Your task to perform on an android device: Add sony triple a to the cart on target, then select checkout. Image 0: 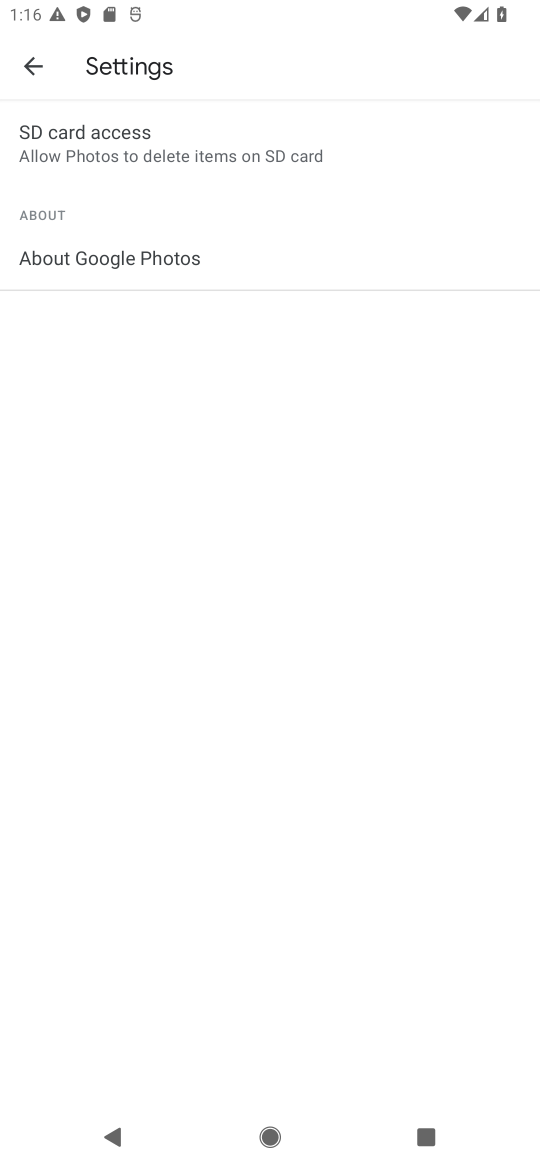
Step 0: press home button
Your task to perform on an android device: Add sony triple a to the cart on target, then select checkout. Image 1: 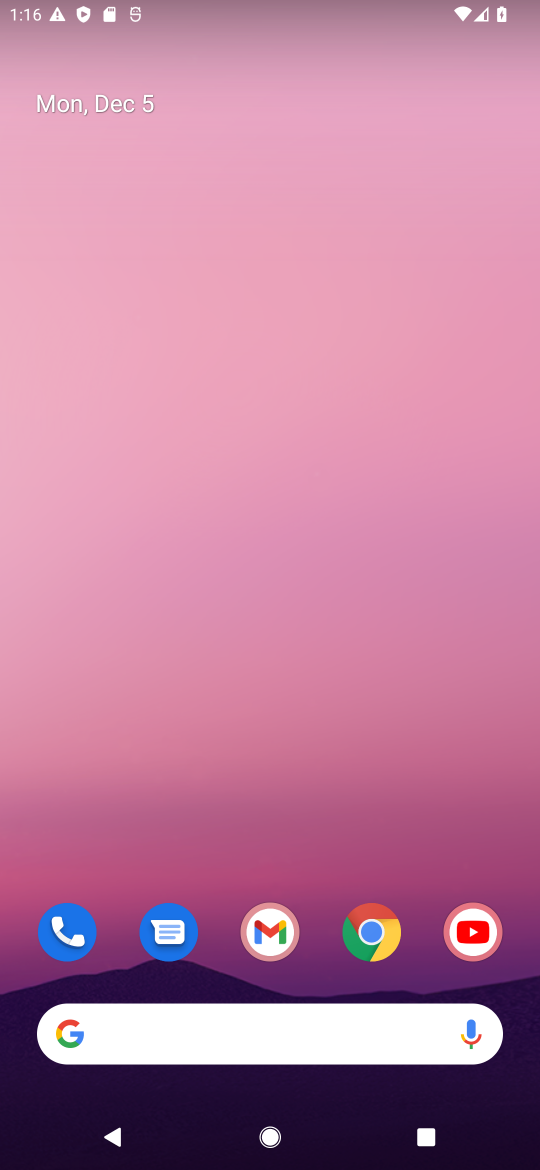
Step 1: click (353, 926)
Your task to perform on an android device: Add sony triple a to the cart on target, then select checkout. Image 2: 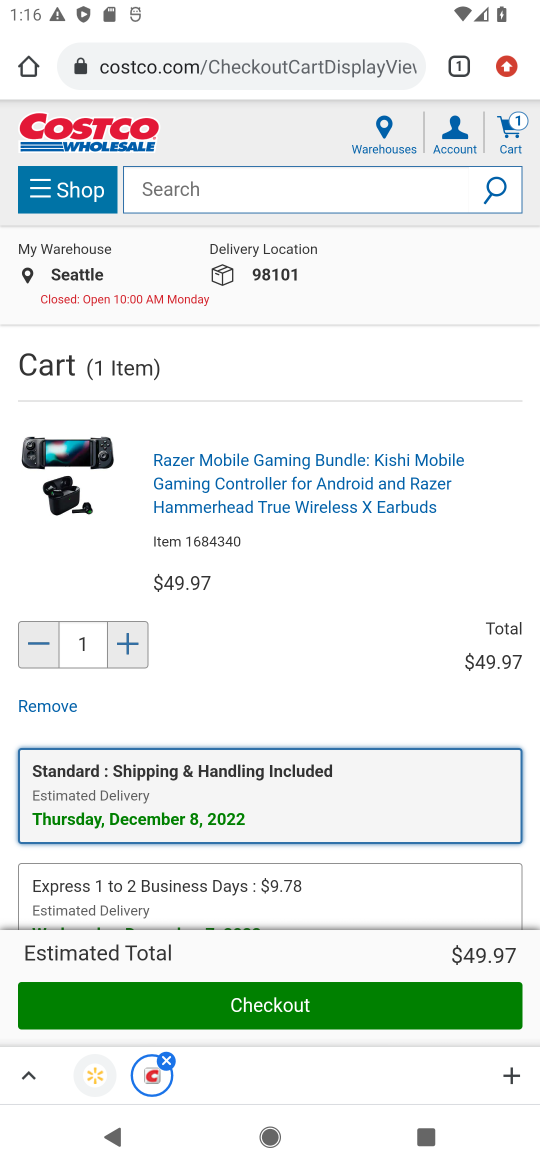
Step 2: click (222, 61)
Your task to perform on an android device: Add sony triple a to the cart on target, then select checkout. Image 3: 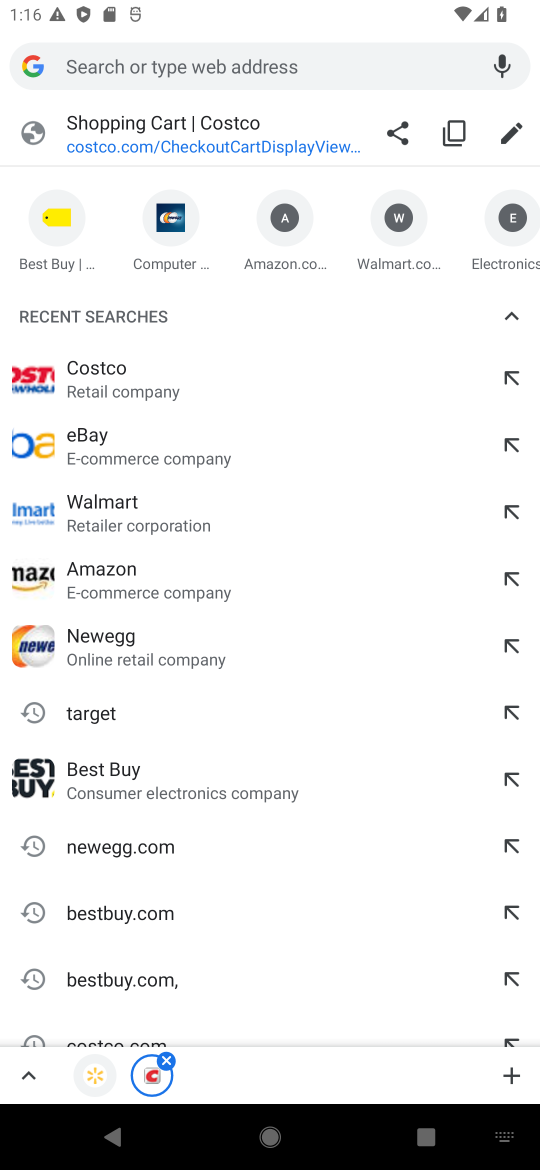
Step 3: click (92, 715)
Your task to perform on an android device: Add sony triple a to the cart on target, then select checkout. Image 4: 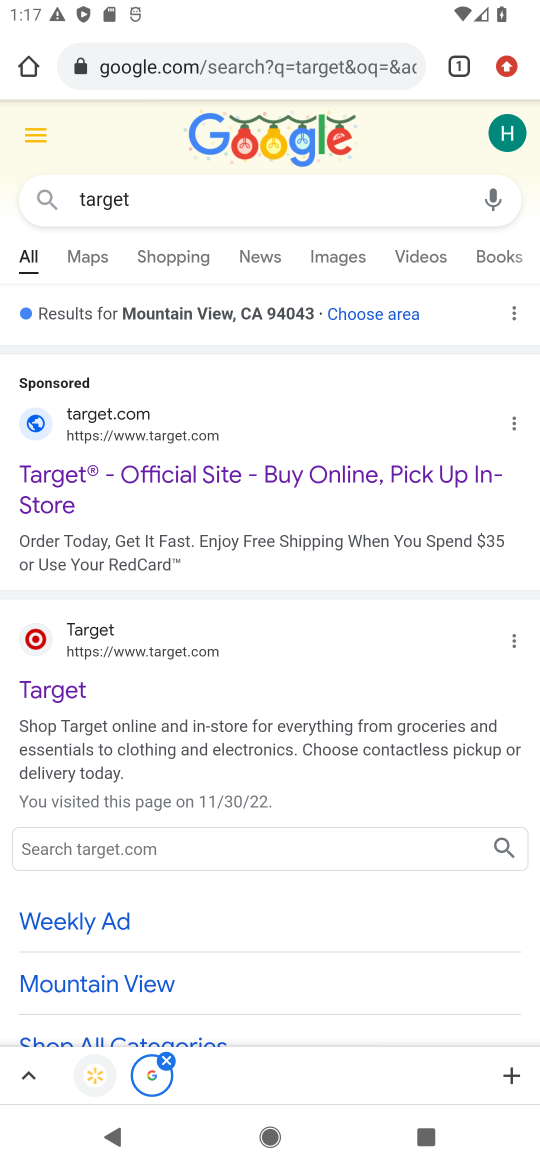
Step 4: click (204, 469)
Your task to perform on an android device: Add sony triple a to the cart on target, then select checkout. Image 5: 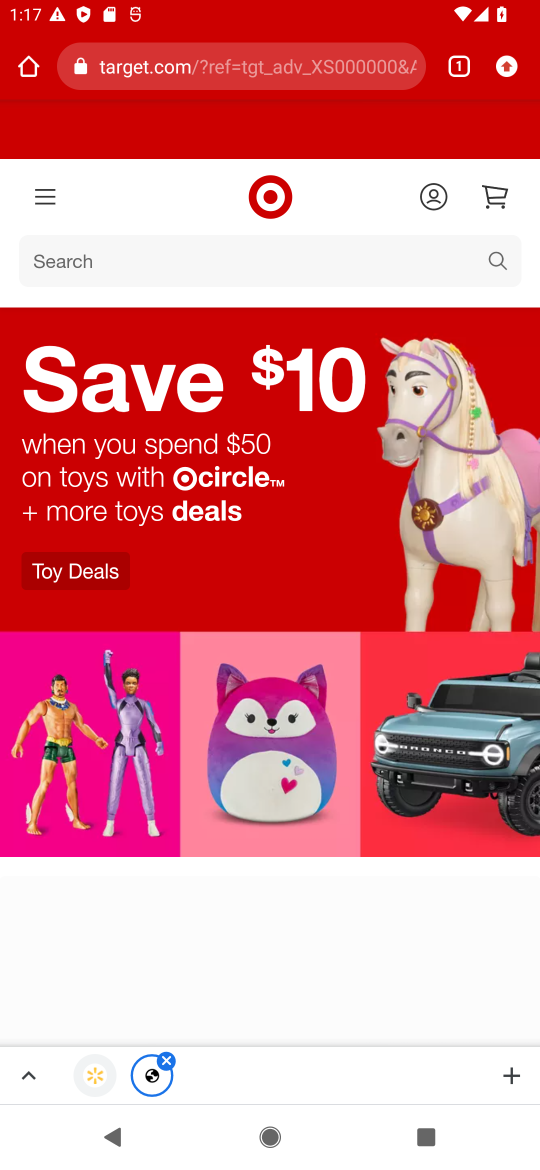
Step 5: click (486, 260)
Your task to perform on an android device: Add sony triple a to the cart on target, then select checkout. Image 6: 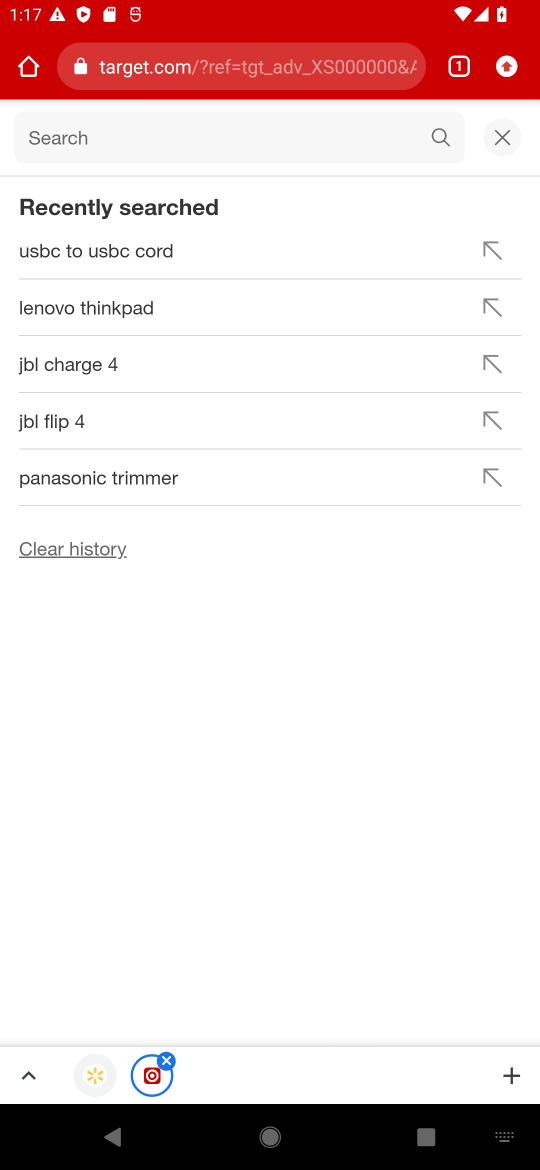
Step 6: type "sony triple a"
Your task to perform on an android device: Add sony triple a to the cart on target, then select checkout. Image 7: 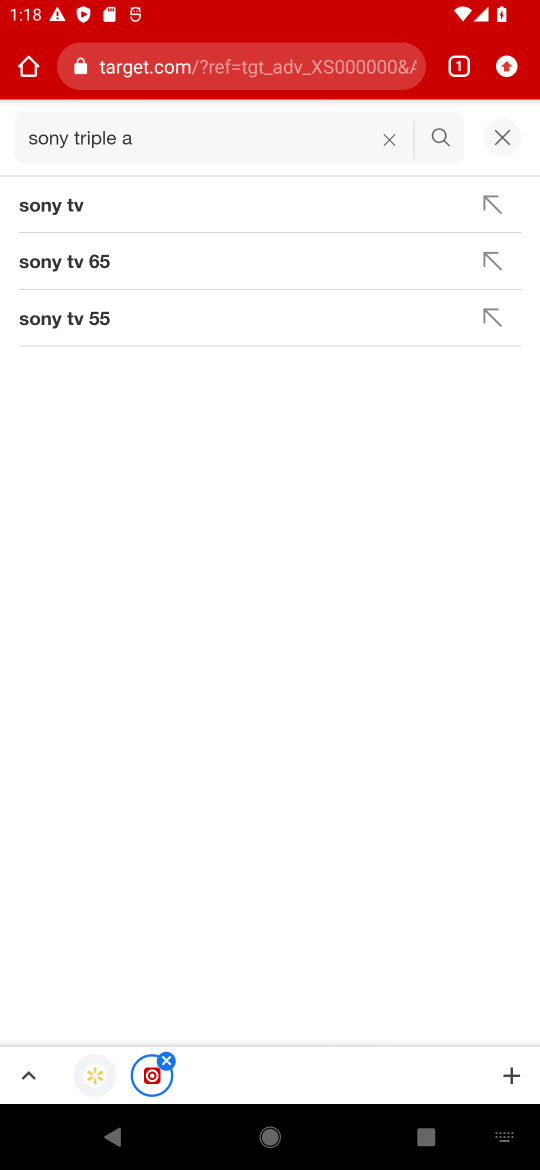
Step 7: task complete